Your task to perform on an android device: Go to network settings Image 0: 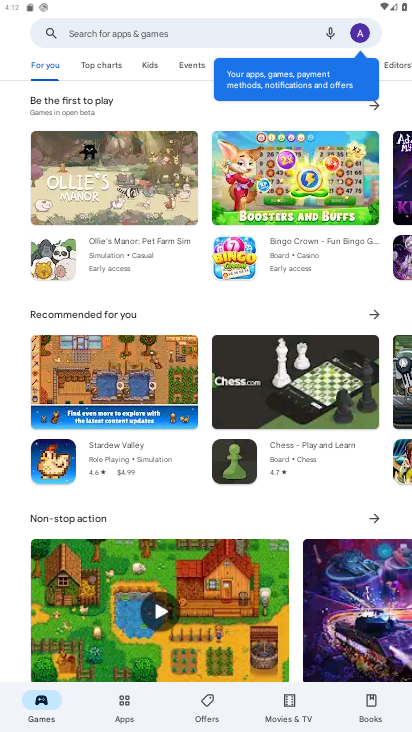
Step 0: press home button
Your task to perform on an android device: Go to network settings Image 1: 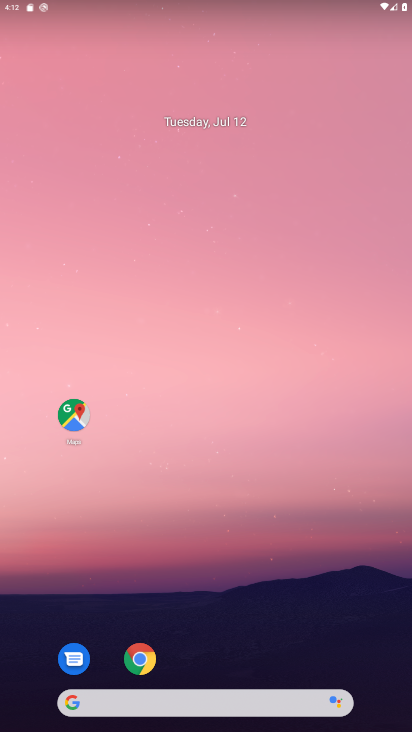
Step 1: drag from (28, 685) to (246, 107)
Your task to perform on an android device: Go to network settings Image 2: 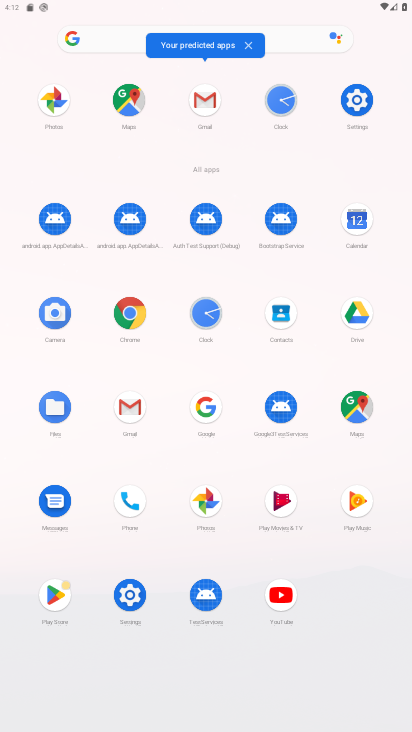
Step 2: click (122, 607)
Your task to perform on an android device: Go to network settings Image 3: 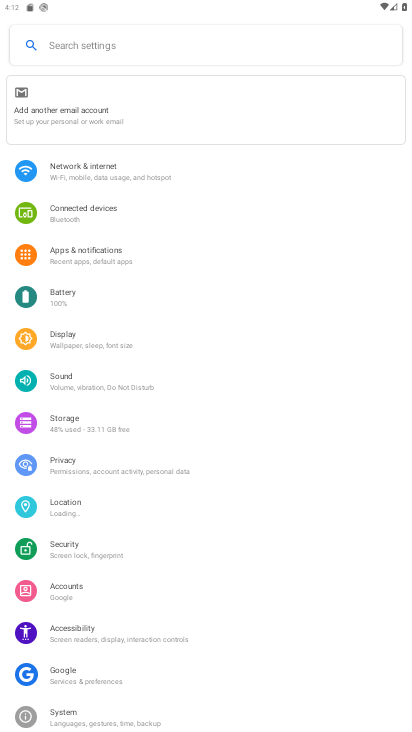
Step 3: click (97, 173)
Your task to perform on an android device: Go to network settings Image 4: 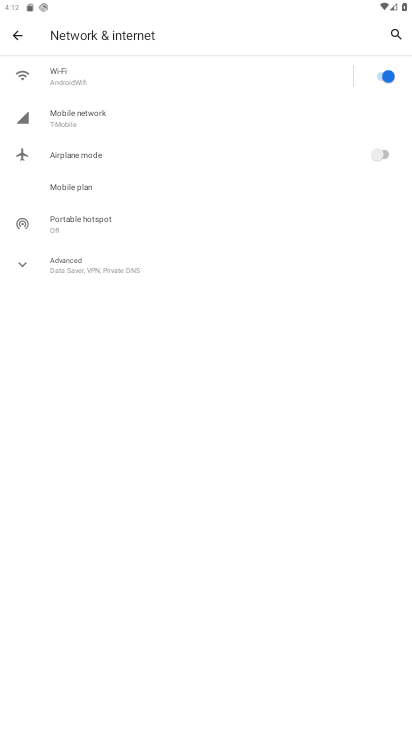
Step 4: task complete